Your task to perform on an android device: What's on my calendar tomorrow? Image 0: 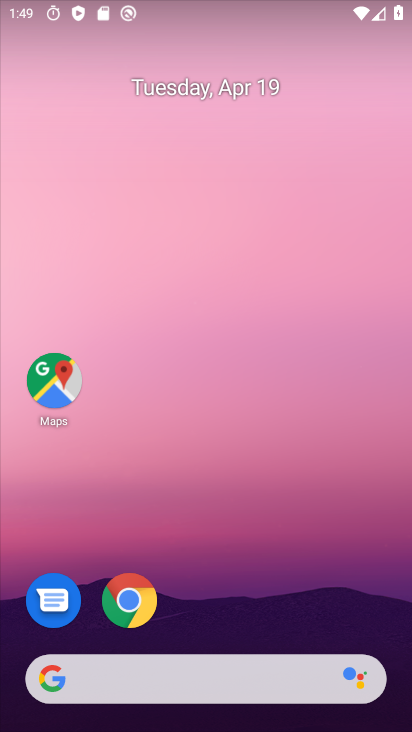
Step 0: drag from (266, 687) to (216, 216)
Your task to perform on an android device: What's on my calendar tomorrow? Image 1: 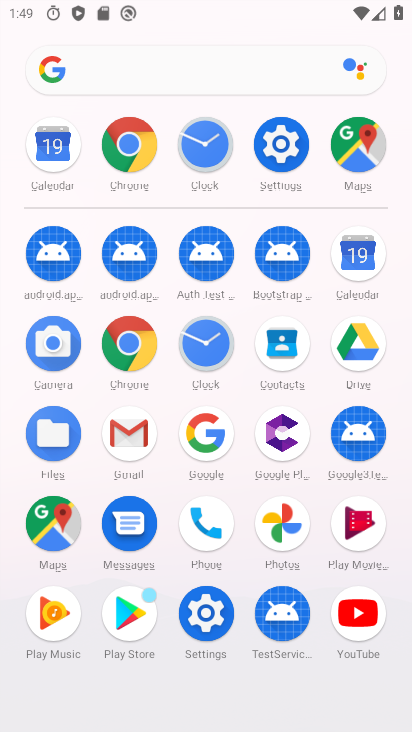
Step 1: click (354, 238)
Your task to perform on an android device: What's on my calendar tomorrow? Image 2: 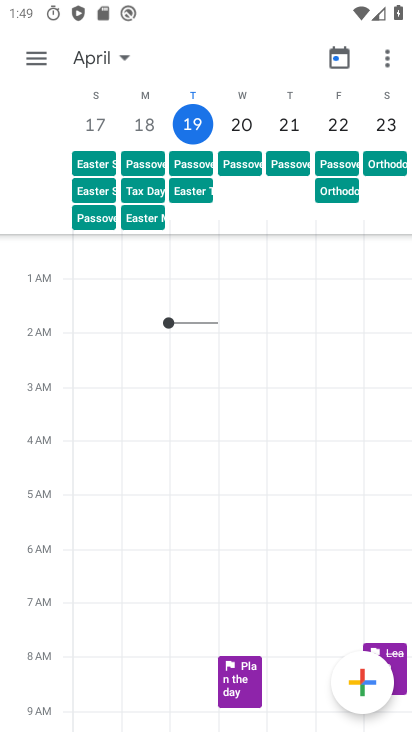
Step 2: click (22, 64)
Your task to perform on an android device: What's on my calendar tomorrow? Image 3: 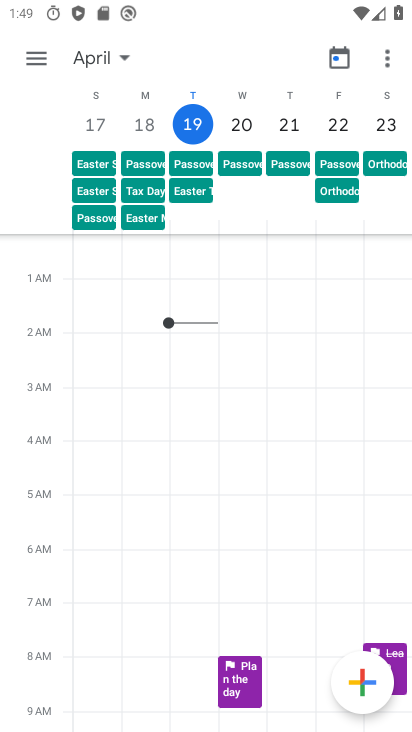
Step 3: click (47, 47)
Your task to perform on an android device: What's on my calendar tomorrow? Image 4: 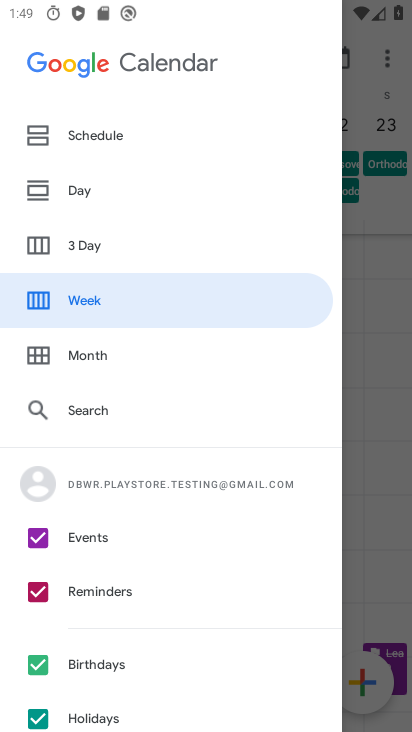
Step 4: click (54, 250)
Your task to perform on an android device: What's on my calendar tomorrow? Image 5: 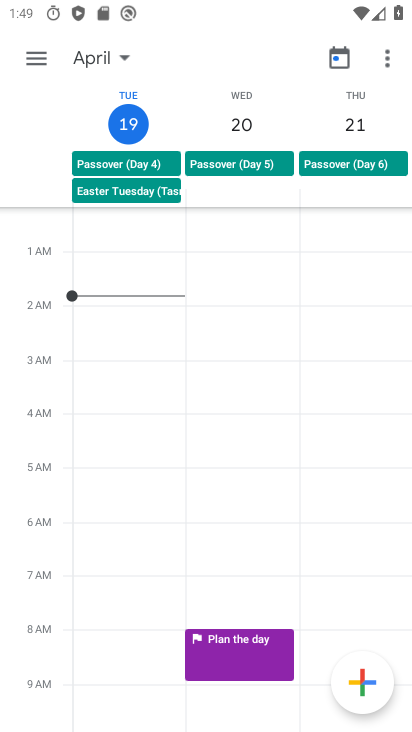
Step 5: click (246, 125)
Your task to perform on an android device: What's on my calendar tomorrow? Image 6: 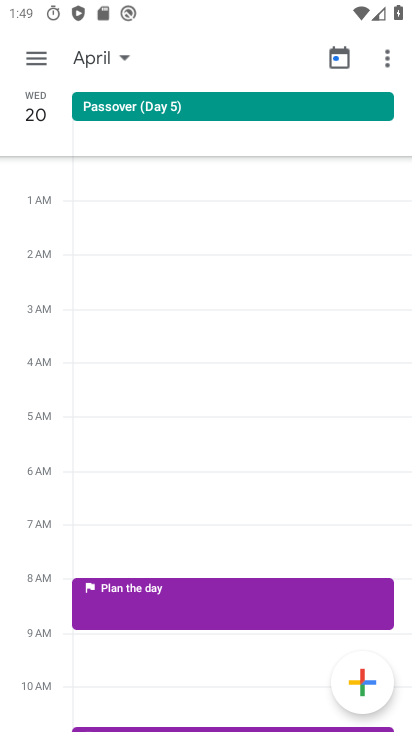
Step 6: task complete